Your task to perform on an android device: turn on notifications settings in the gmail app Image 0: 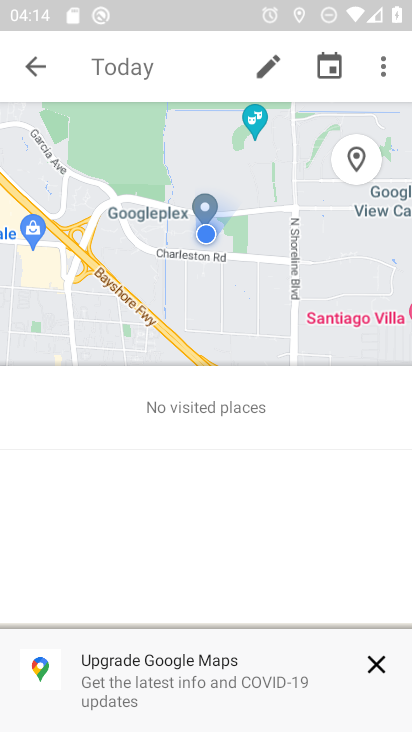
Step 0: press home button
Your task to perform on an android device: turn on notifications settings in the gmail app Image 1: 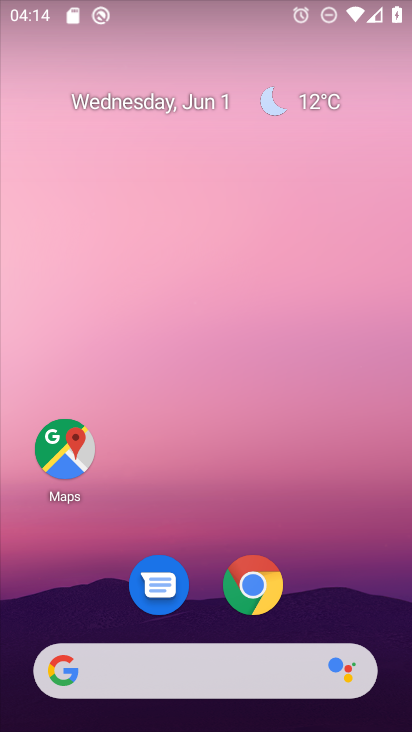
Step 1: drag from (244, 545) to (195, 28)
Your task to perform on an android device: turn on notifications settings in the gmail app Image 2: 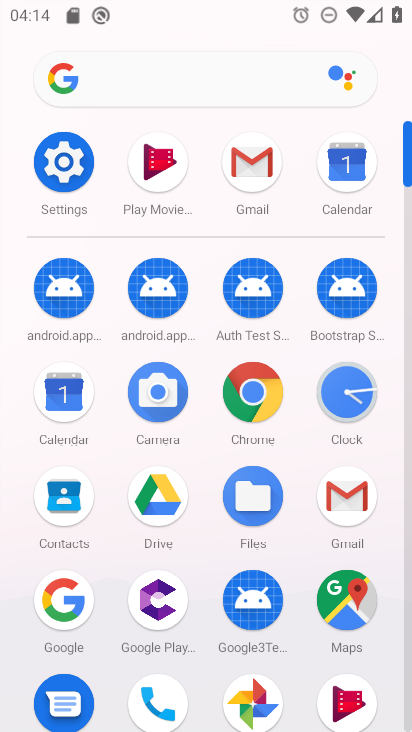
Step 2: click (255, 166)
Your task to perform on an android device: turn on notifications settings in the gmail app Image 3: 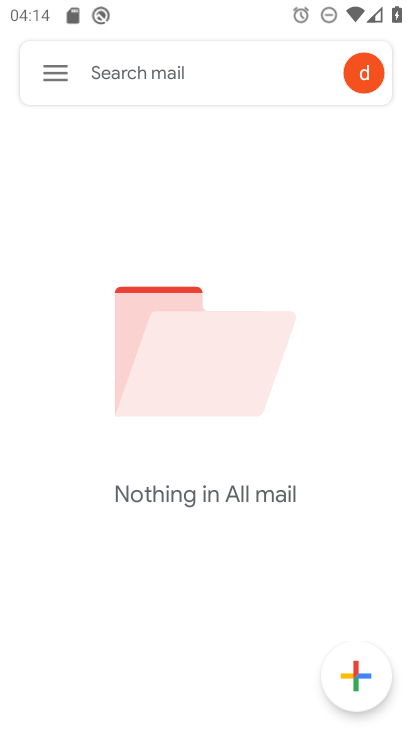
Step 3: click (56, 79)
Your task to perform on an android device: turn on notifications settings in the gmail app Image 4: 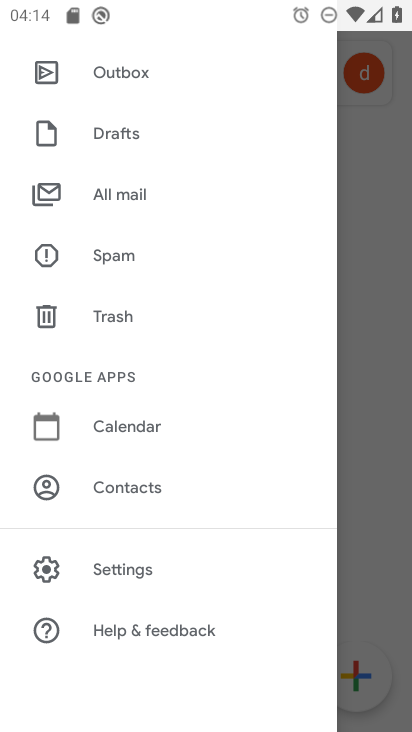
Step 4: click (135, 567)
Your task to perform on an android device: turn on notifications settings in the gmail app Image 5: 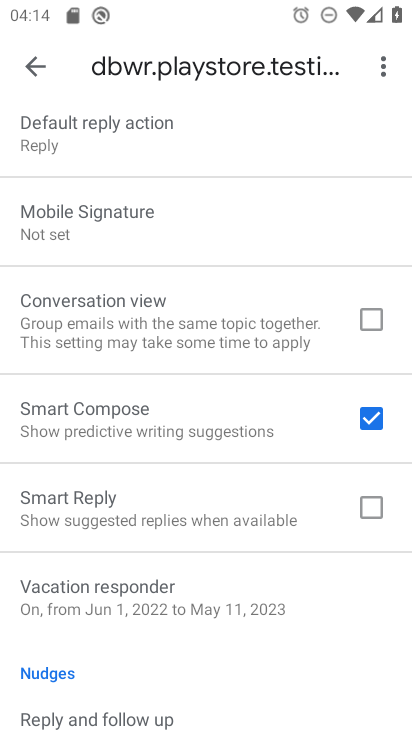
Step 5: drag from (264, 245) to (240, 511)
Your task to perform on an android device: turn on notifications settings in the gmail app Image 6: 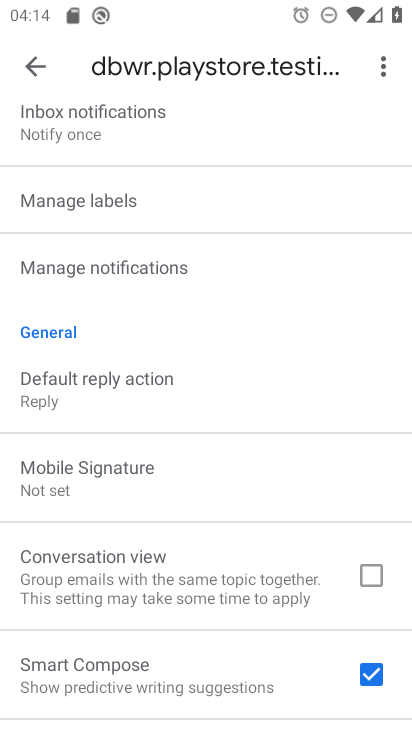
Step 6: click (210, 271)
Your task to perform on an android device: turn on notifications settings in the gmail app Image 7: 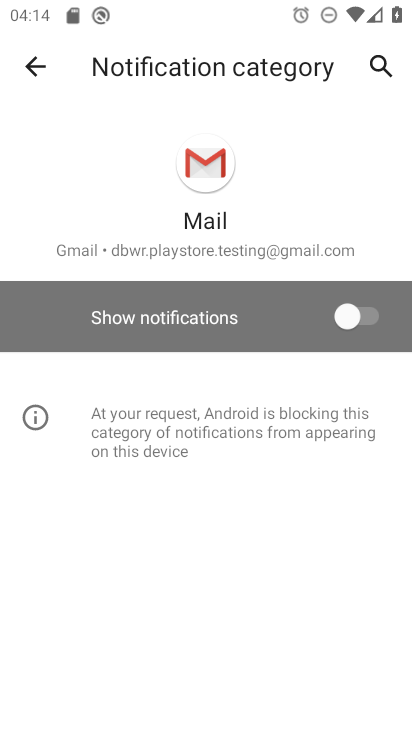
Step 7: click (347, 314)
Your task to perform on an android device: turn on notifications settings in the gmail app Image 8: 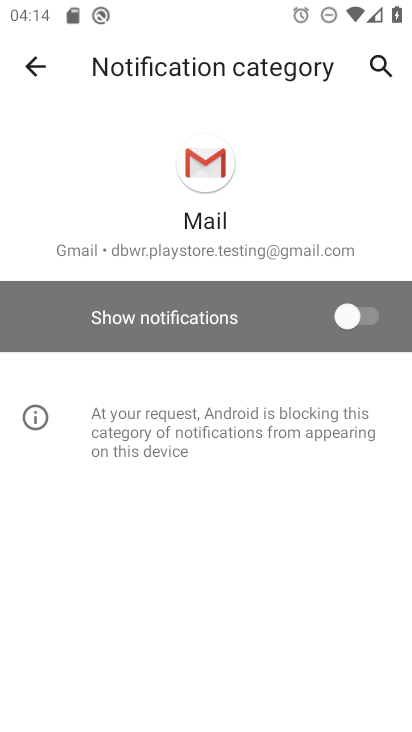
Step 8: click (350, 314)
Your task to perform on an android device: turn on notifications settings in the gmail app Image 9: 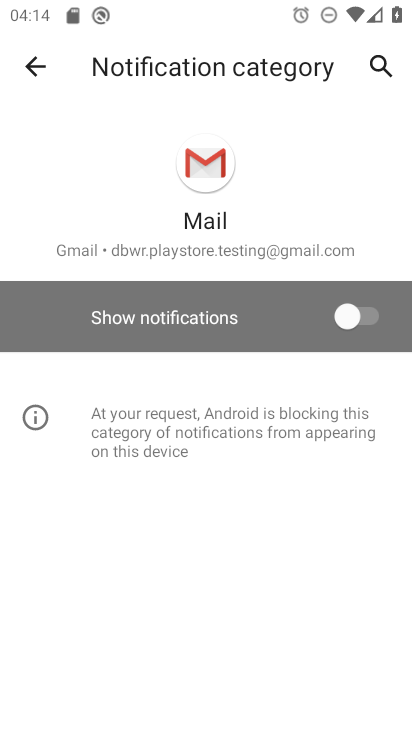
Step 9: click (22, 53)
Your task to perform on an android device: turn on notifications settings in the gmail app Image 10: 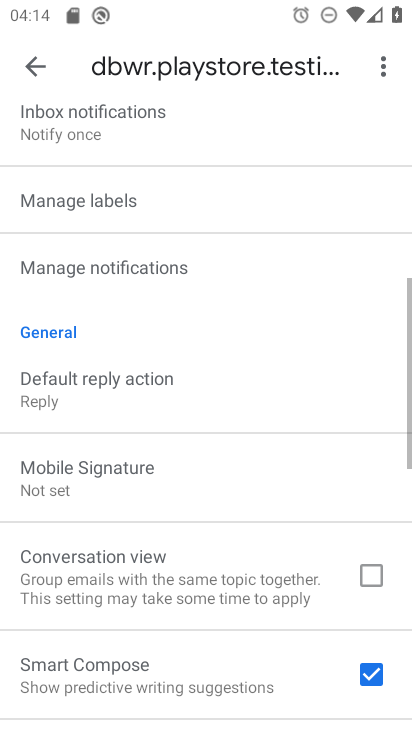
Step 10: click (25, 60)
Your task to perform on an android device: turn on notifications settings in the gmail app Image 11: 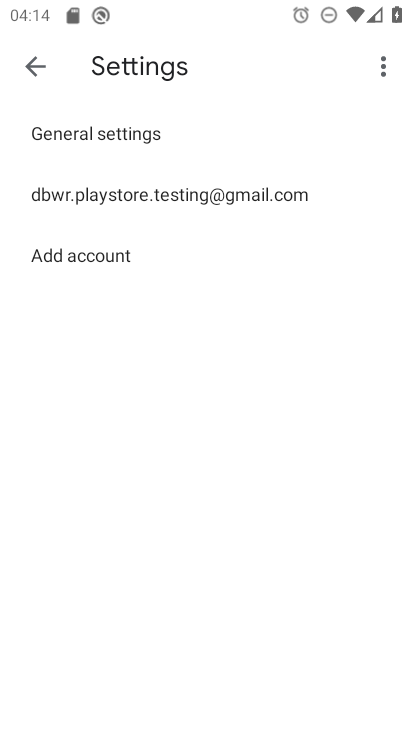
Step 11: click (113, 129)
Your task to perform on an android device: turn on notifications settings in the gmail app Image 12: 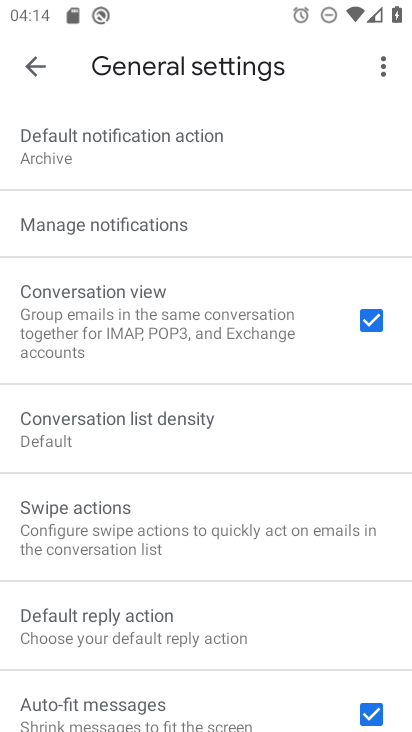
Step 12: click (256, 231)
Your task to perform on an android device: turn on notifications settings in the gmail app Image 13: 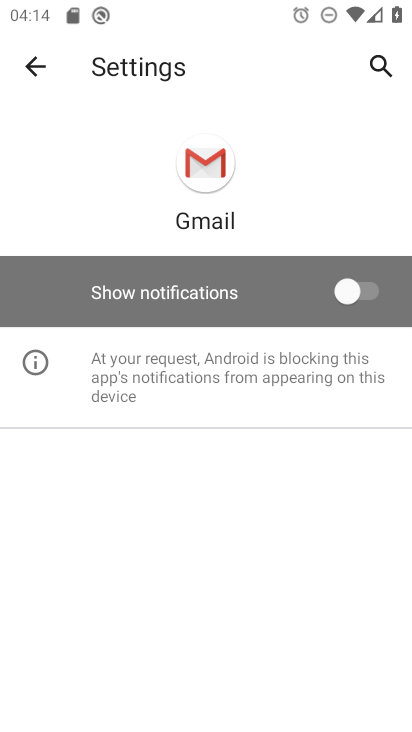
Step 13: click (354, 284)
Your task to perform on an android device: turn on notifications settings in the gmail app Image 14: 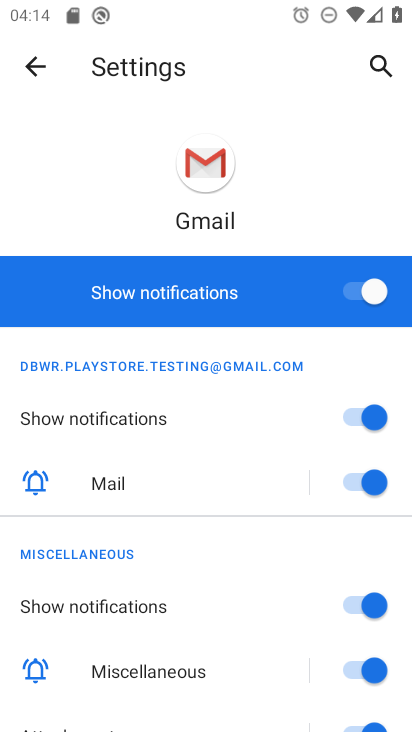
Step 14: task complete